Your task to perform on an android device: Open Chrome and go to the settings page Image 0: 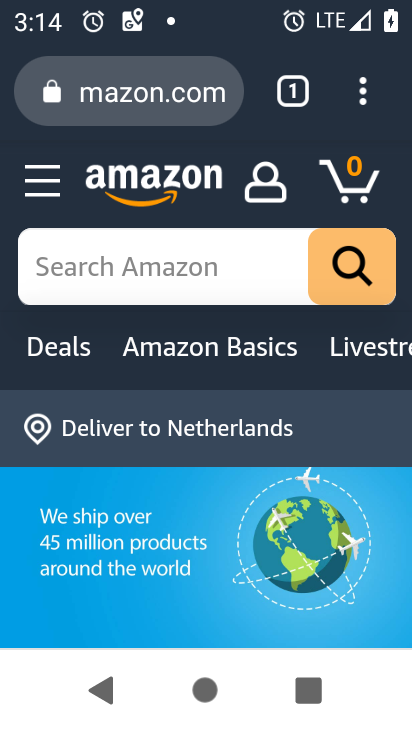
Step 0: drag from (363, 87) to (85, 478)
Your task to perform on an android device: Open Chrome and go to the settings page Image 1: 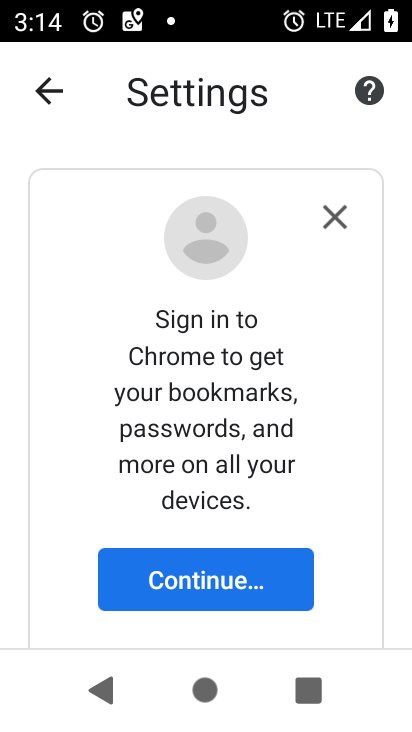
Step 1: task complete